Your task to perform on an android device: Go to location settings Image 0: 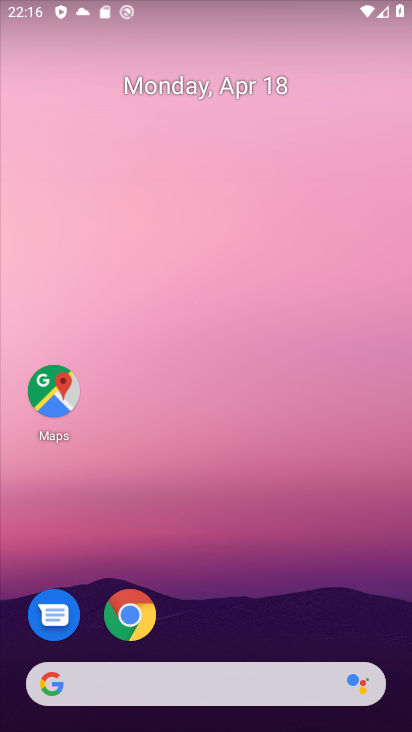
Step 0: drag from (378, 639) to (372, 61)
Your task to perform on an android device: Go to location settings Image 1: 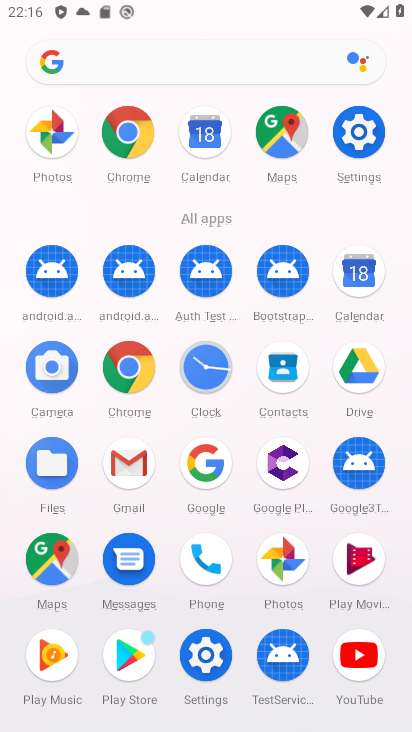
Step 1: click (363, 133)
Your task to perform on an android device: Go to location settings Image 2: 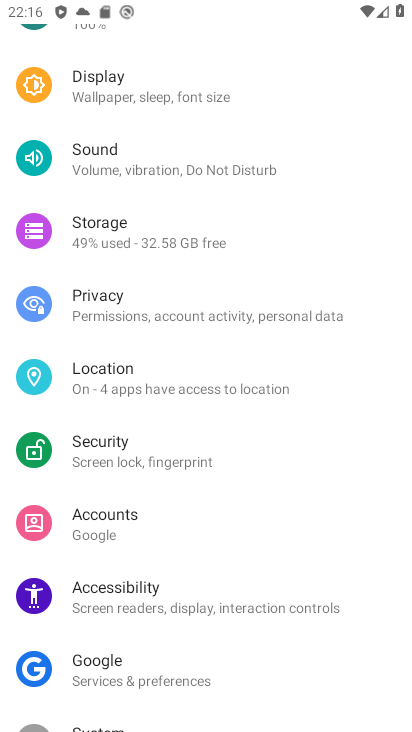
Step 2: click (100, 382)
Your task to perform on an android device: Go to location settings Image 3: 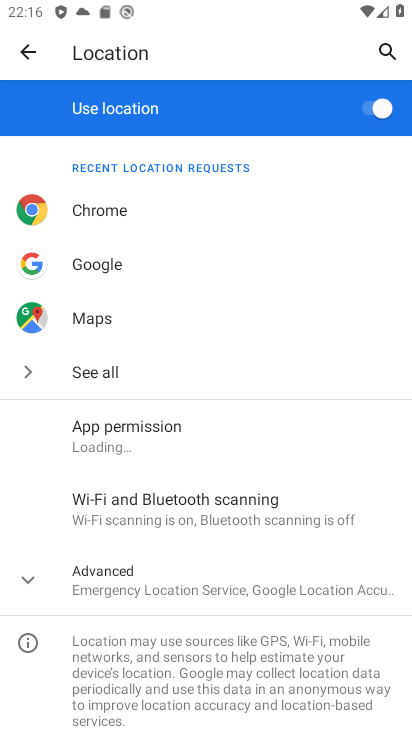
Step 3: task complete